Your task to perform on an android device: open a new tab in the chrome app Image 0: 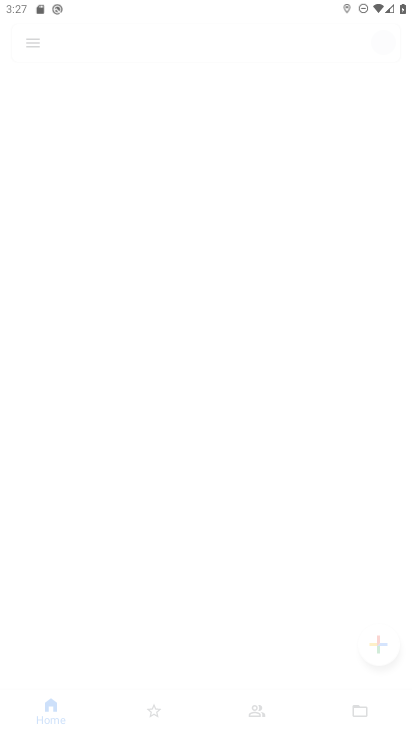
Step 0: click (132, 631)
Your task to perform on an android device: open a new tab in the chrome app Image 1: 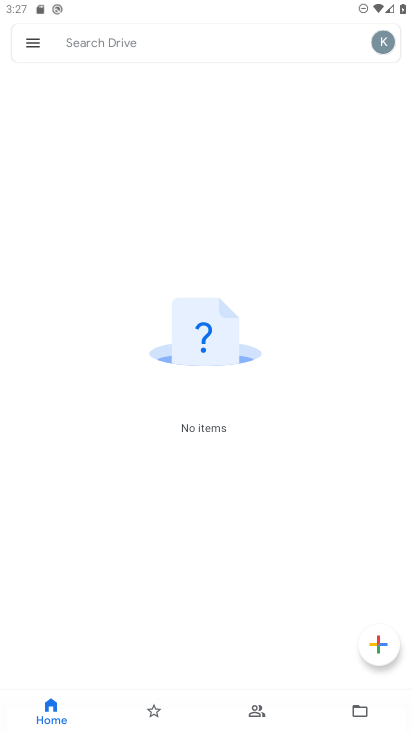
Step 1: press home button
Your task to perform on an android device: open a new tab in the chrome app Image 2: 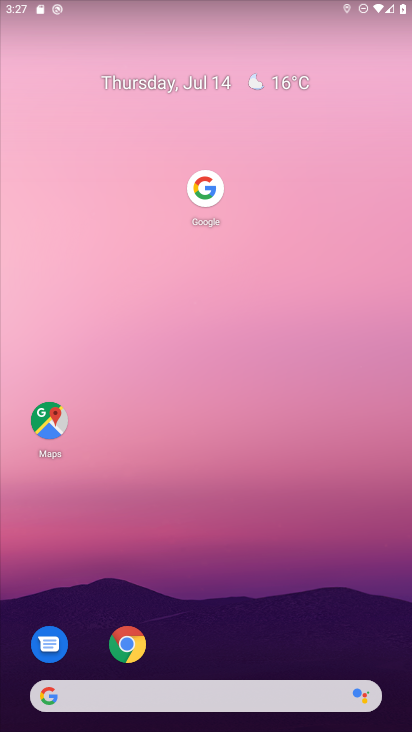
Step 2: click (125, 651)
Your task to perform on an android device: open a new tab in the chrome app Image 3: 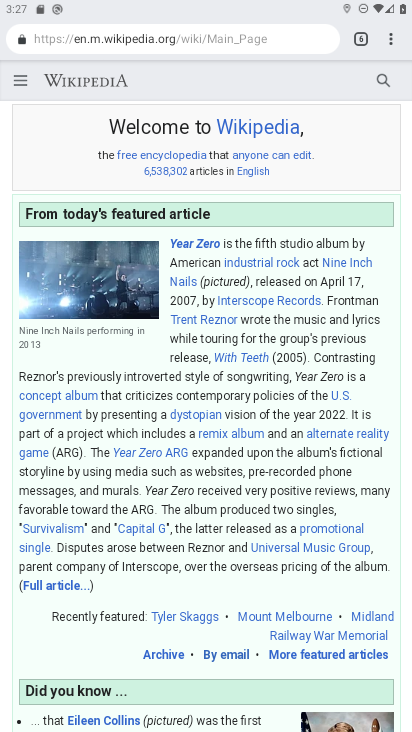
Step 3: click (361, 42)
Your task to perform on an android device: open a new tab in the chrome app Image 4: 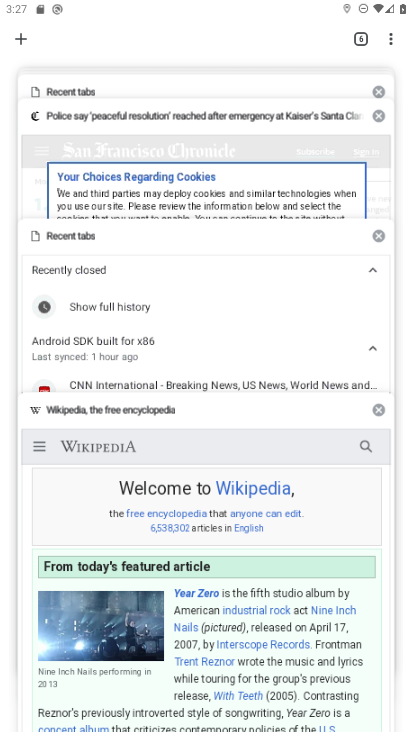
Step 4: click (25, 45)
Your task to perform on an android device: open a new tab in the chrome app Image 5: 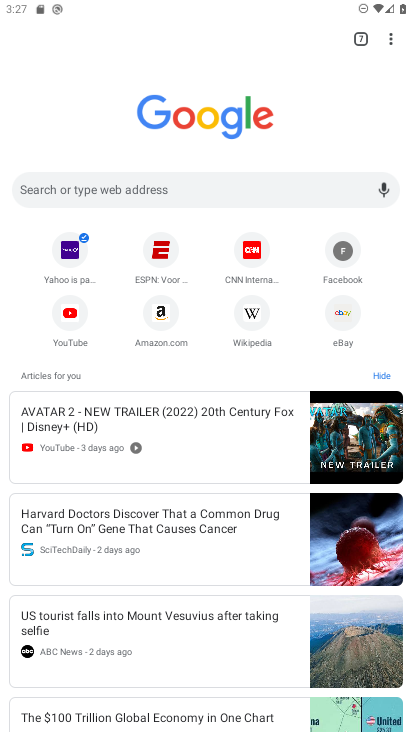
Step 5: task complete